Your task to perform on an android device: Go to Maps Image 0: 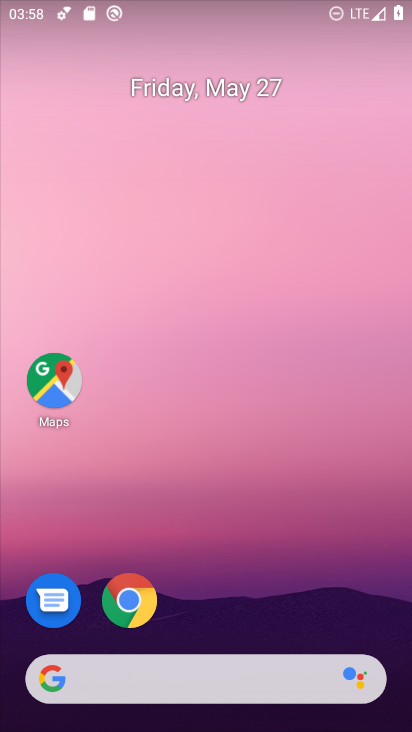
Step 0: drag from (203, 729) to (215, 83)
Your task to perform on an android device: Go to Maps Image 1: 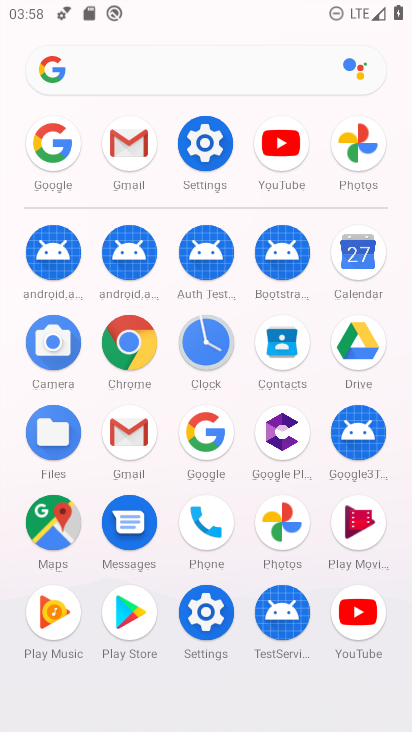
Step 1: click (47, 519)
Your task to perform on an android device: Go to Maps Image 2: 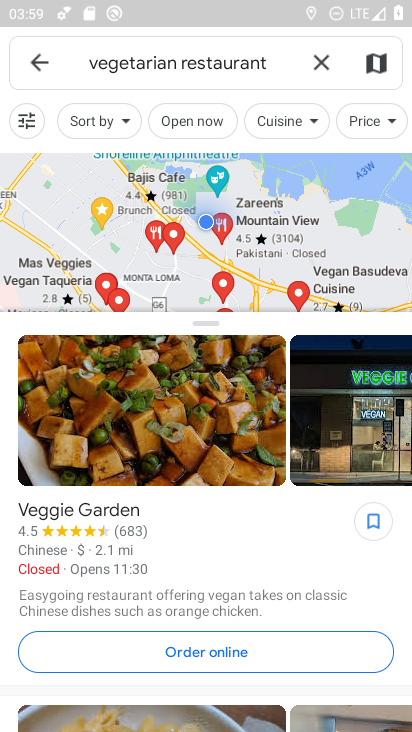
Step 2: task complete